Your task to perform on an android device: Show me popular videos on Youtube Image 0: 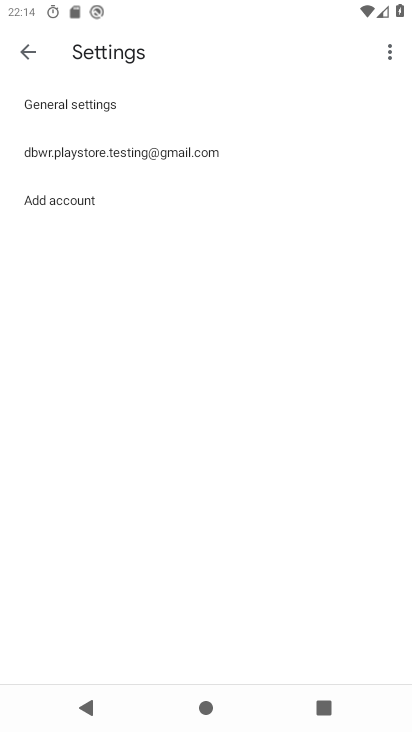
Step 0: press home button
Your task to perform on an android device: Show me popular videos on Youtube Image 1: 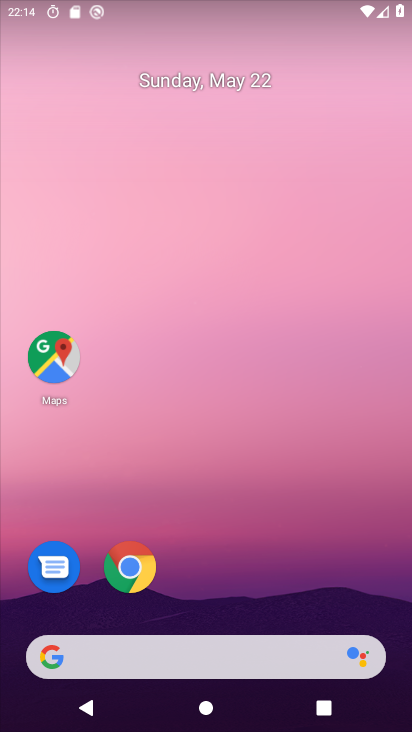
Step 1: drag from (244, 612) to (192, 0)
Your task to perform on an android device: Show me popular videos on Youtube Image 2: 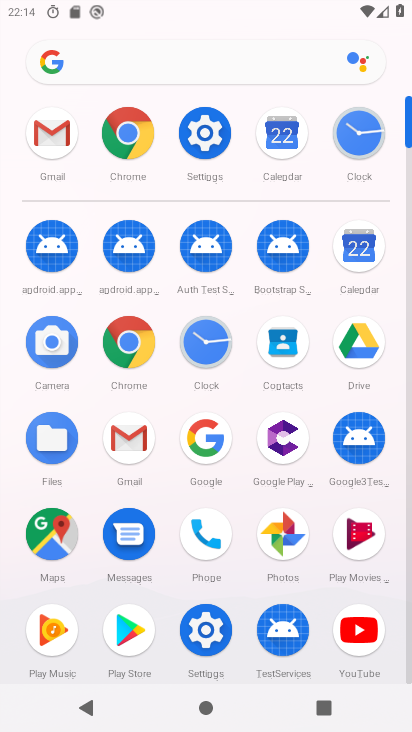
Step 2: click (360, 623)
Your task to perform on an android device: Show me popular videos on Youtube Image 3: 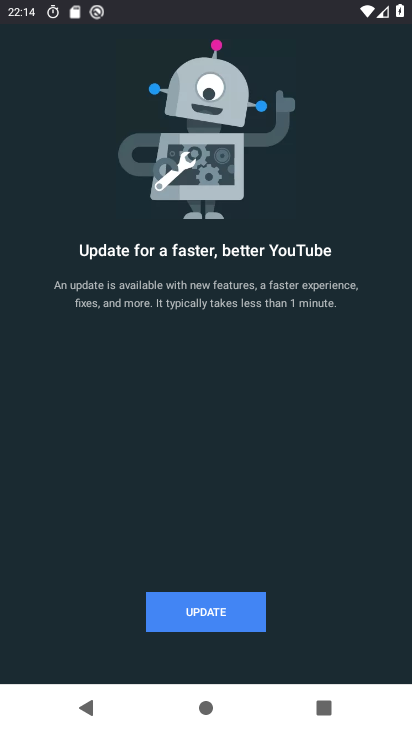
Step 3: click (218, 610)
Your task to perform on an android device: Show me popular videos on Youtube Image 4: 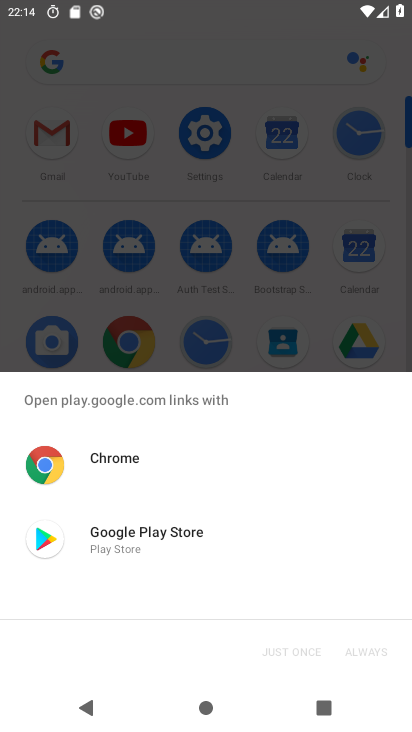
Step 4: click (148, 542)
Your task to perform on an android device: Show me popular videos on Youtube Image 5: 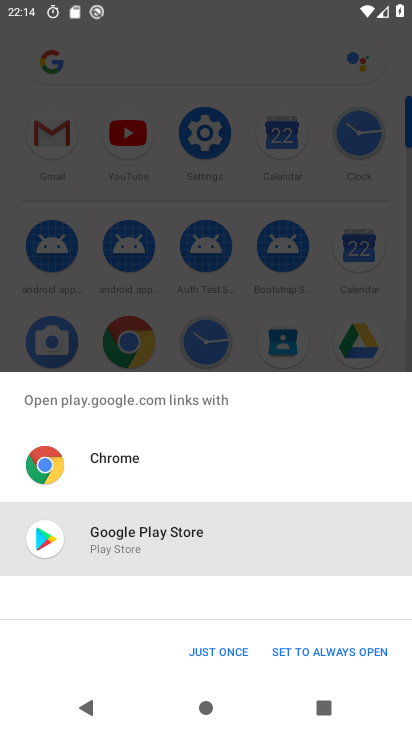
Step 5: click (214, 649)
Your task to perform on an android device: Show me popular videos on Youtube Image 6: 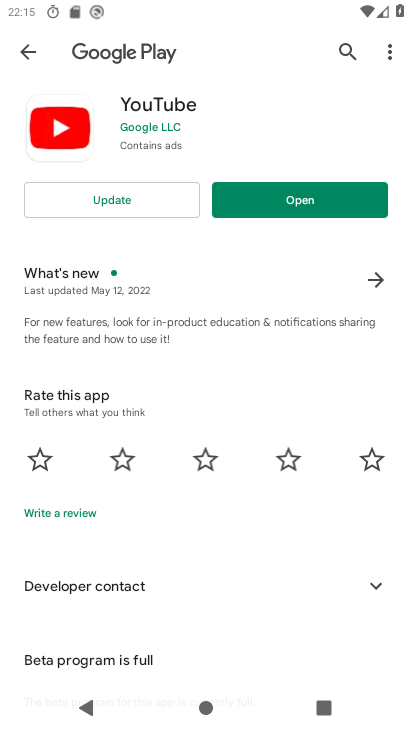
Step 6: click (102, 203)
Your task to perform on an android device: Show me popular videos on Youtube Image 7: 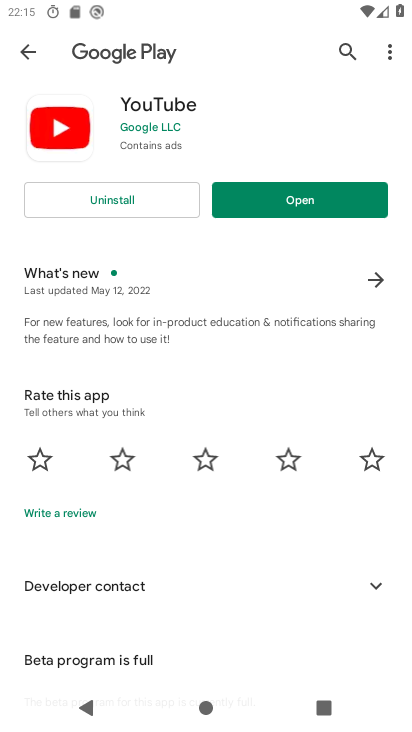
Step 7: click (316, 201)
Your task to perform on an android device: Show me popular videos on Youtube Image 8: 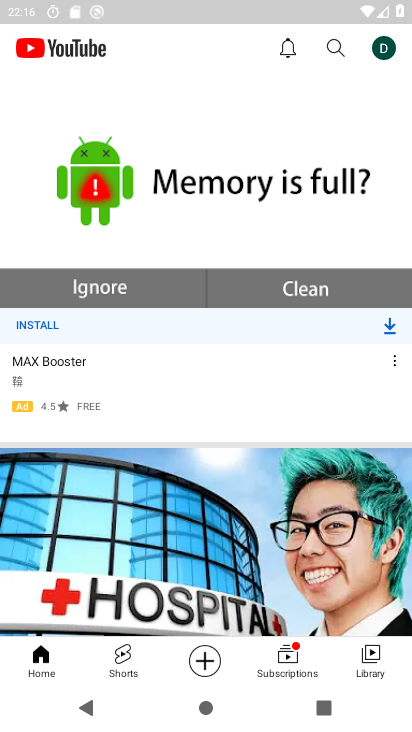
Step 8: drag from (165, 595) to (161, 134)
Your task to perform on an android device: Show me popular videos on Youtube Image 9: 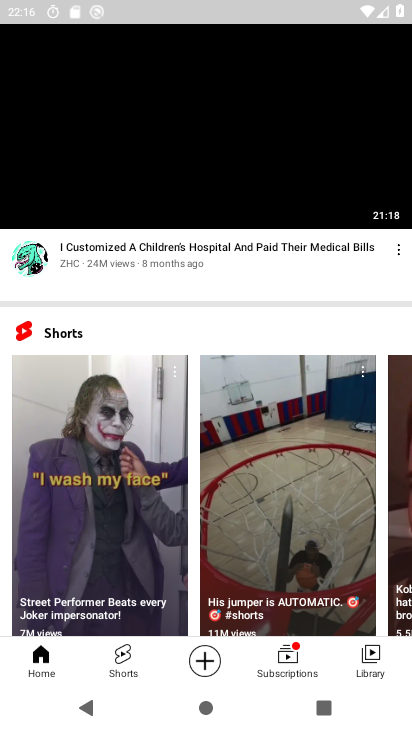
Step 9: drag from (161, 477) to (174, 165)
Your task to perform on an android device: Show me popular videos on Youtube Image 10: 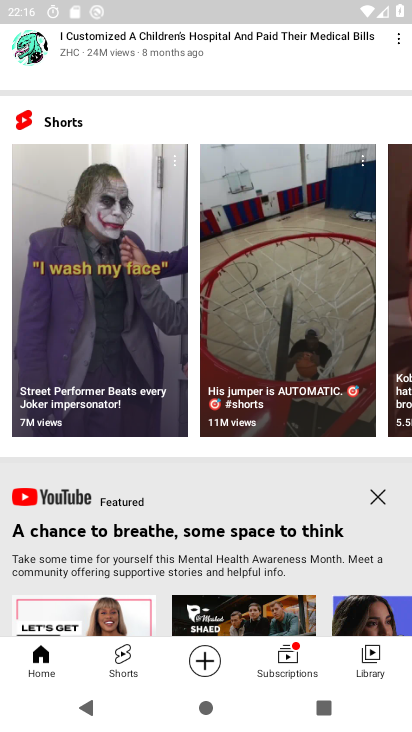
Step 10: drag from (173, 155) to (174, 625)
Your task to perform on an android device: Show me popular videos on Youtube Image 11: 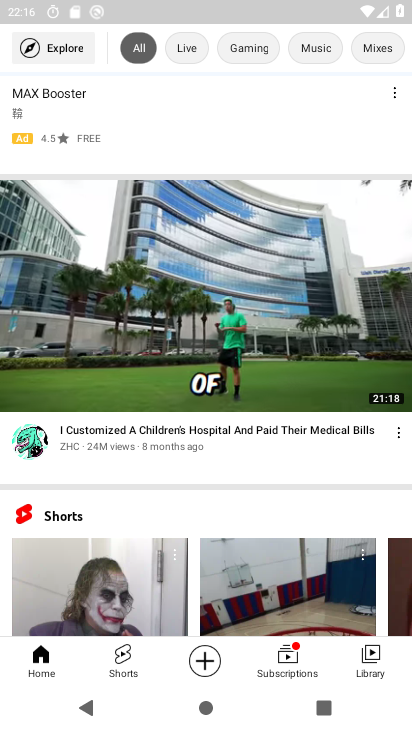
Step 11: click (57, 44)
Your task to perform on an android device: Show me popular videos on Youtube Image 12: 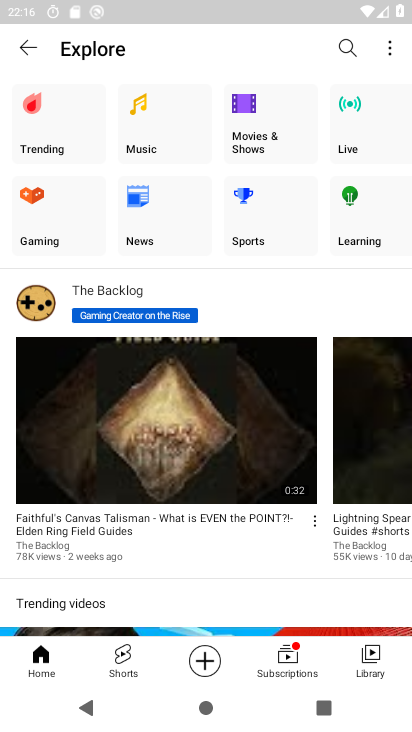
Step 12: click (36, 129)
Your task to perform on an android device: Show me popular videos on Youtube Image 13: 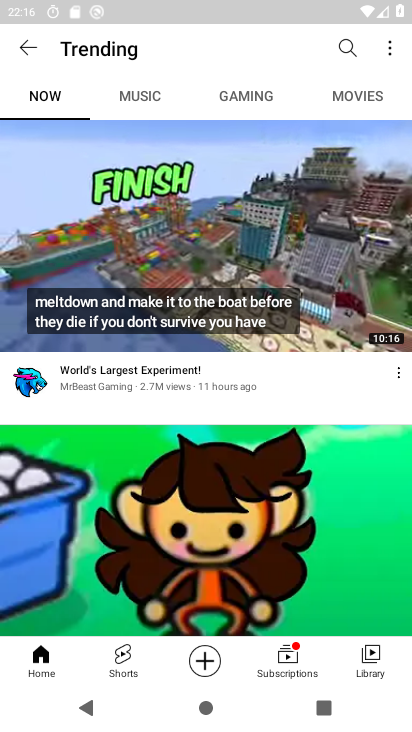
Step 13: task complete